Your task to perform on an android device: see creations saved in the google photos Image 0: 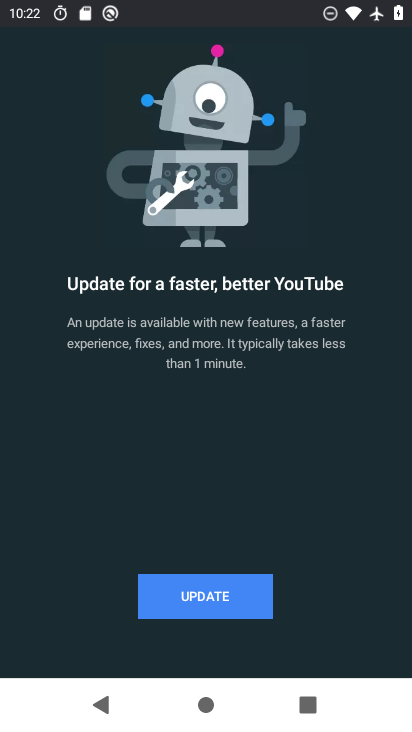
Step 0: press home button
Your task to perform on an android device: see creations saved in the google photos Image 1: 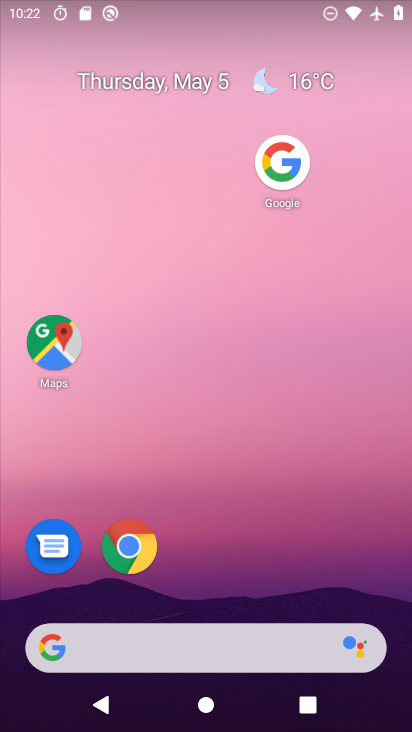
Step 1: drag from (170, 641) to (292, 178)
Your task to perform on an android device: see creations saved in the google photos Image 2: 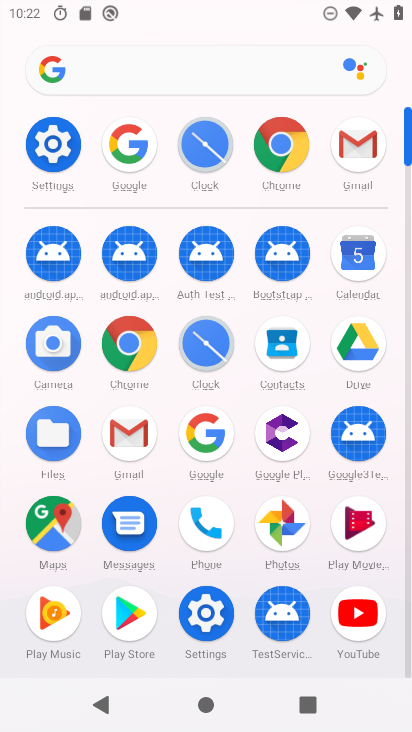
Step 2: click (279, 531)
Your task to perform on an android device: see creations saved in the google photos Image 3: 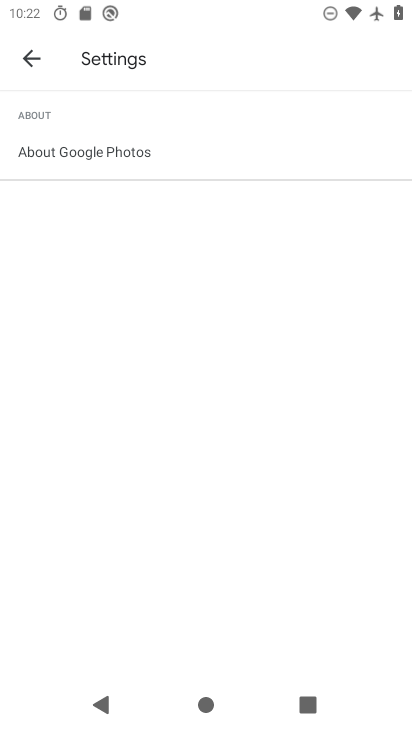
Step 3: click (24, 59)
Your task to perform on an android device: see creations saved in the google photos Image 4: 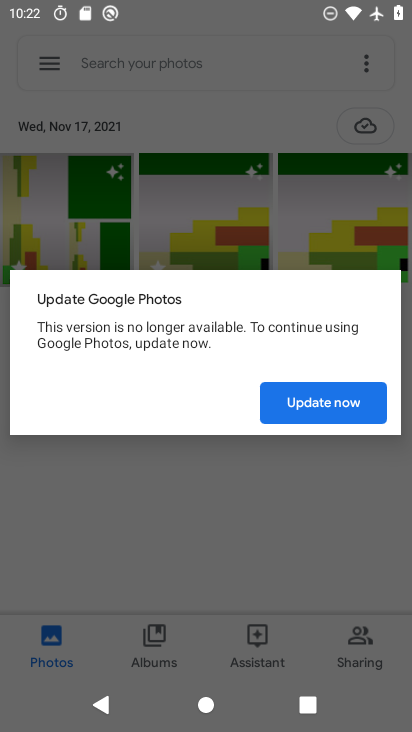
Step 4: click (344, 409)
Your task to perform on an android device: see creations saved in the google photos Image 5: 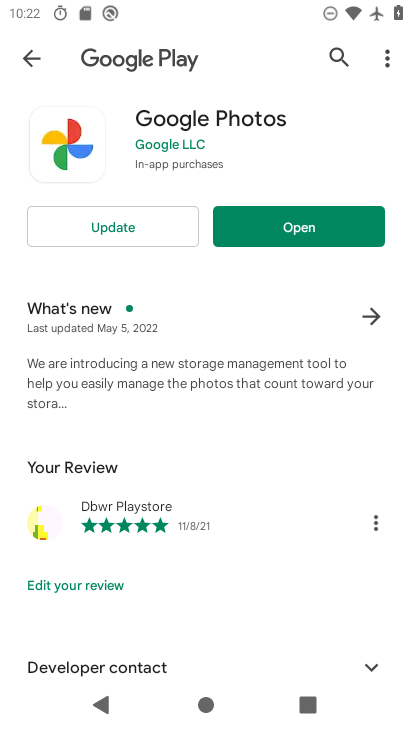
Step 5: click (284, 234)
Your task to perform on an android device: see creations saved in the google photos Image 6: 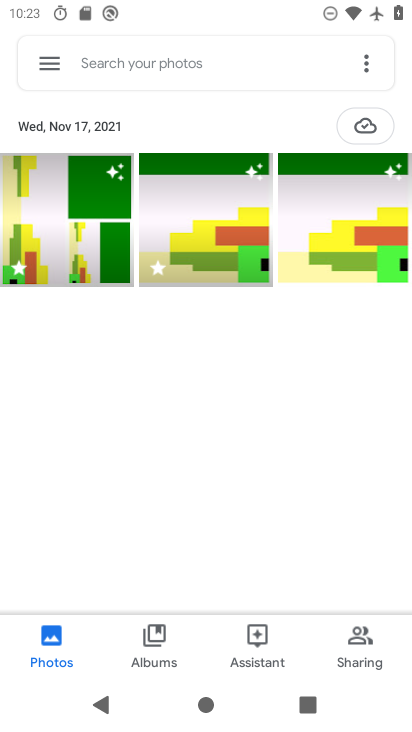
Step 6: click (159, 636)
Your task to perform on an android device: see creations saved in the google photos Image 7: 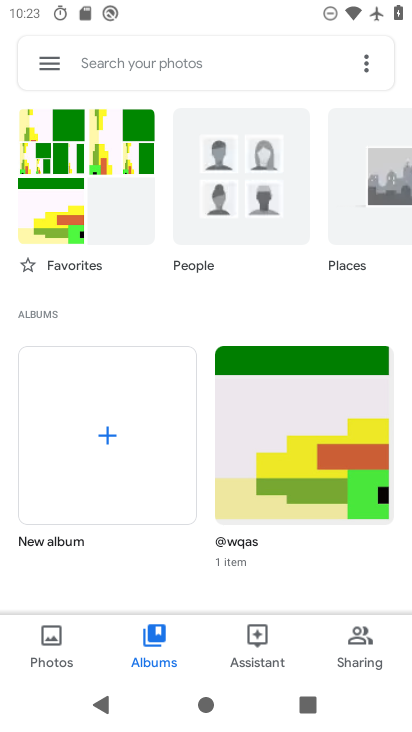
Step 7: click (245, 60)
Your task to perform on an android device: see creations saved in the google photos Image 8: 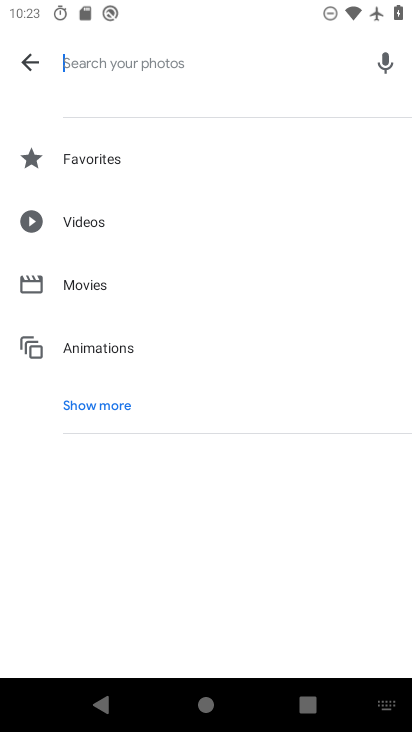
Step 8: click (84, 402)
Your task to perform on an android device: see creations saved in the google photos Image 9: 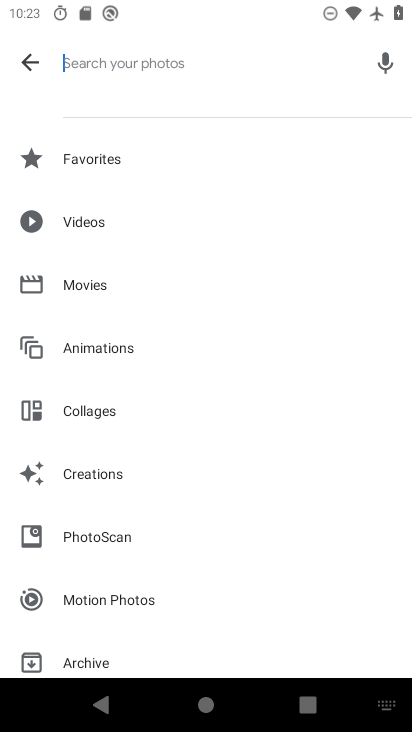
Step 9: click (114, 475)
Your task to perform on an android device: see creations saved in the google photos Image 10: 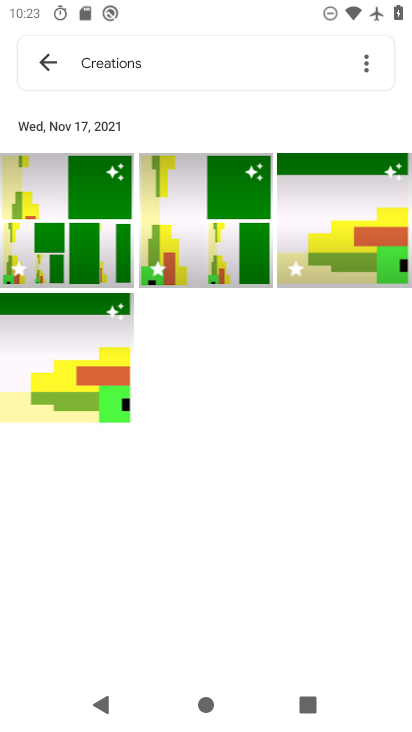
Step 10: task complete